Your task to perform on an android device: star an email in the gmail app Image 0: 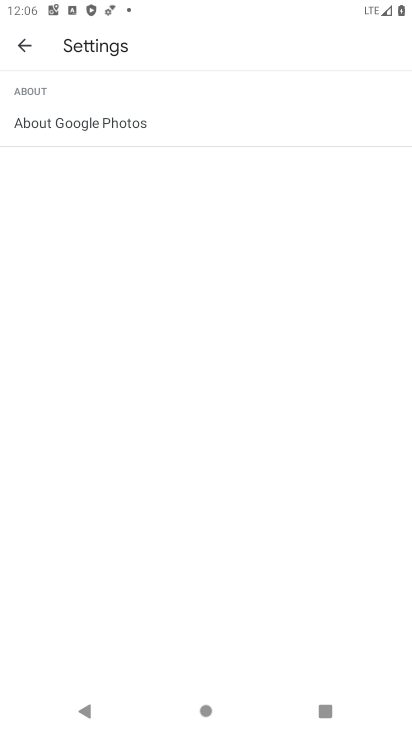
Step 0: press home button
Your task to perform on an android device: star an email in the gmail app Image 1: 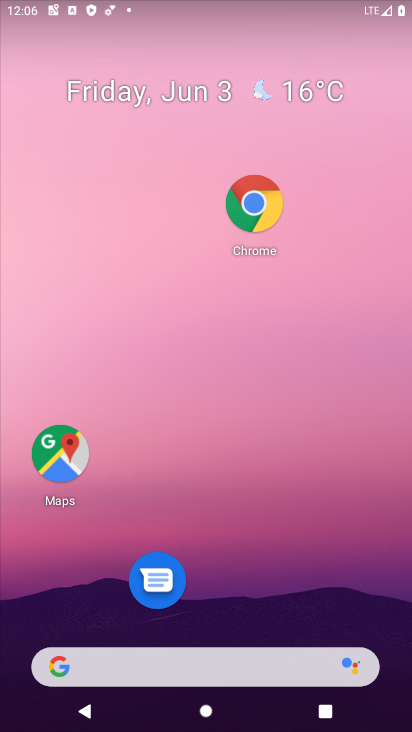
Step 1: drag from (244, 660) to (281, 297)
Your task to perform on an android device: star an email in the gmail app Image 2: 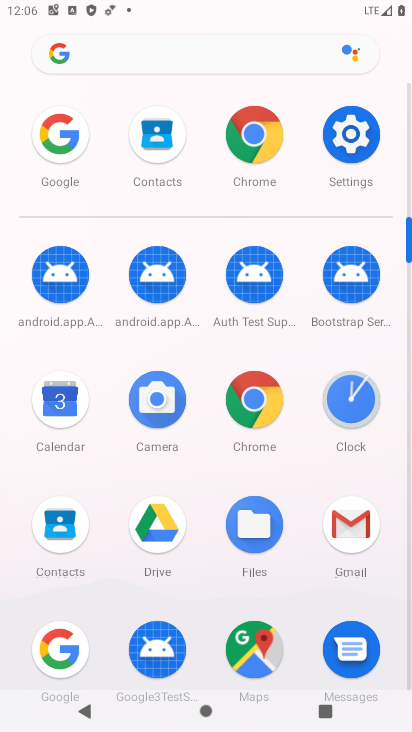
Step 2: click (360, 543)
Your task to perform on an android device: star an email in the gmail app Image 3: 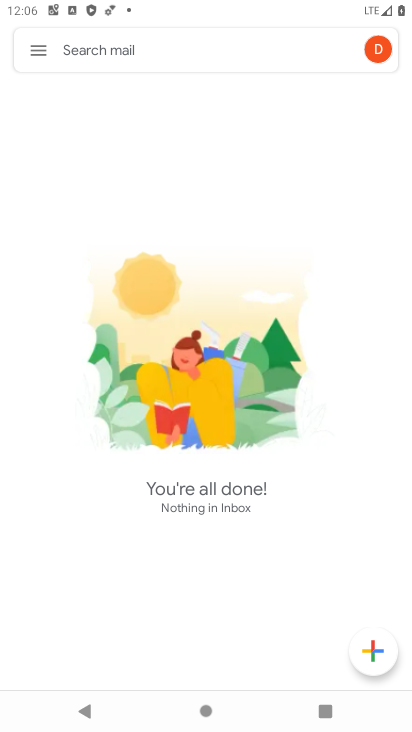
Step 3: click (50, 56)
Your task to perform on an android device: star an email in the gmail app Image 4: 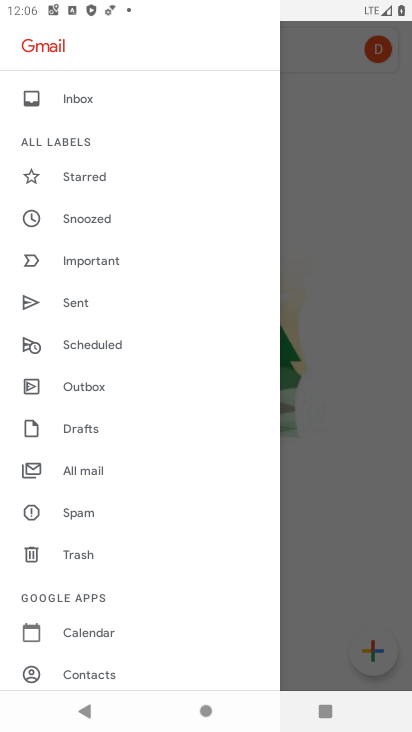
Step 4: click (96, 478)
Your task to perform on an android device: star an email in the gmail app Image 5: 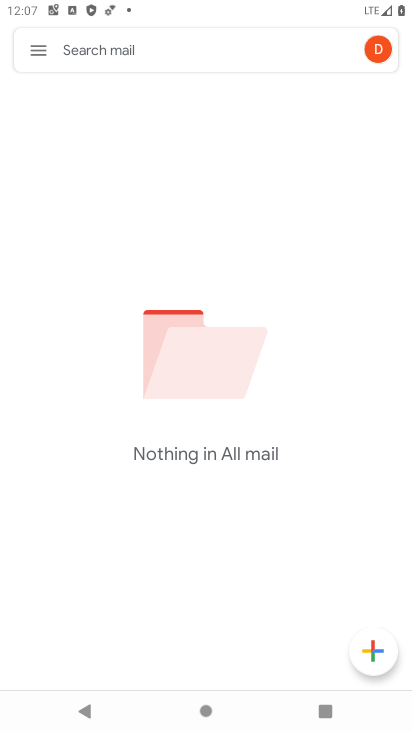
Step 5: task complete